Your task to perform on an android device: Open the stopwatch Image 0: 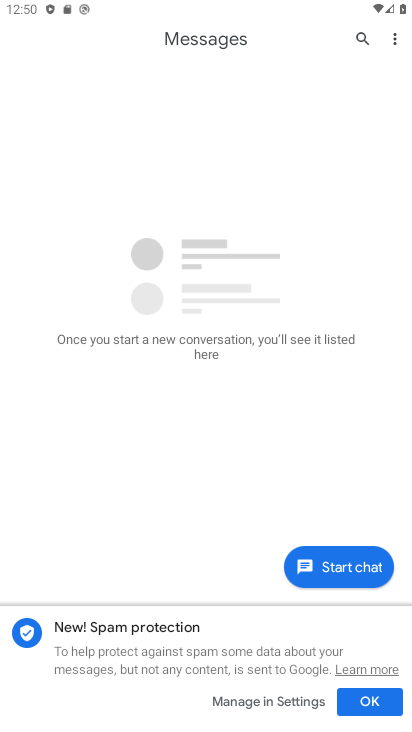
Step 0: press home button
Your task to perform on an android device: Open the stopwatch Image 1: 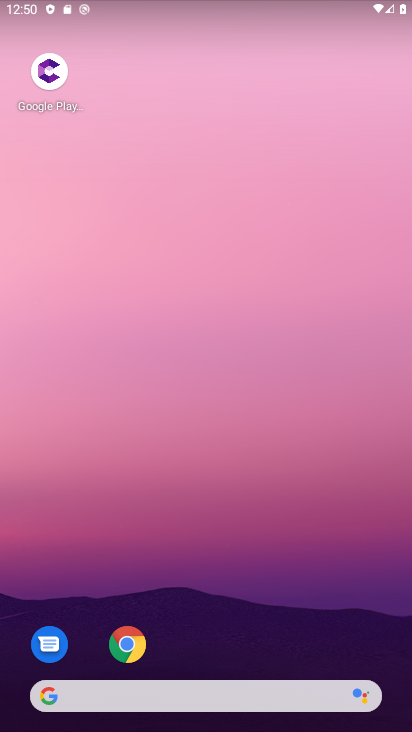
Step 1: drag from (201, 563) to (212, 70)
Your task to perform on an android device: Open the stopwatch Image 2: 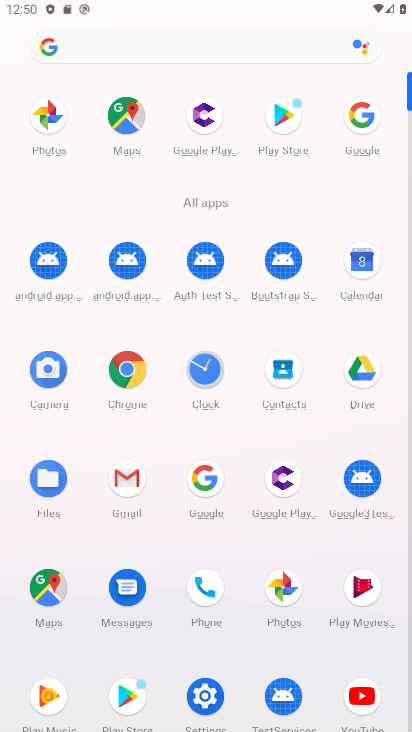
Step 2: click (207, 370)
Your task to perform on an android device: Open the stopwatch Image 3: 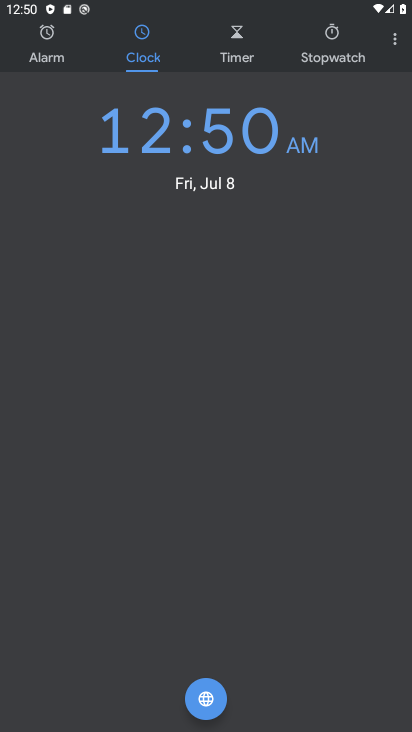
Step 3: click (327, 43)
Your task to perform on an android device: Open the stopwatch Image 4: 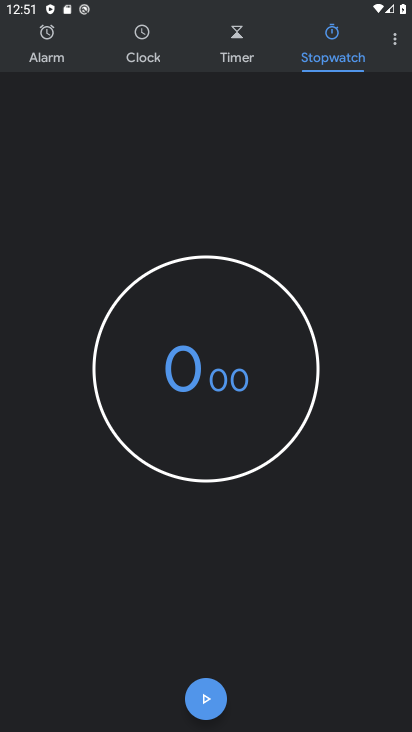
Step 4: click (207, 705)
Your task to perform on an android device: Open the stopwatch Image 5: 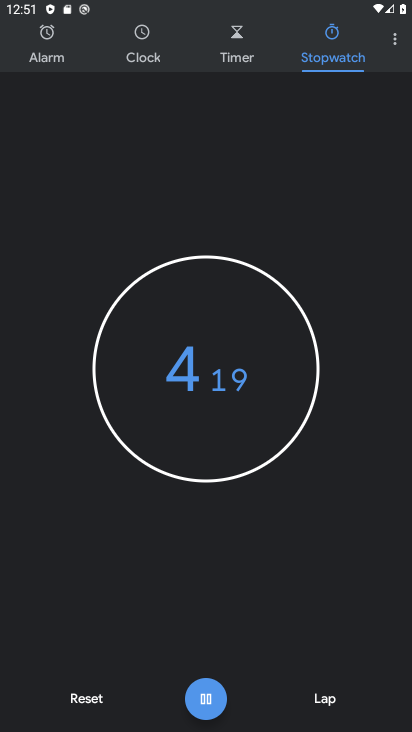
Step 5: click (207, 705)
Your task to perform on an android device: Open the stopwatch Image 6: 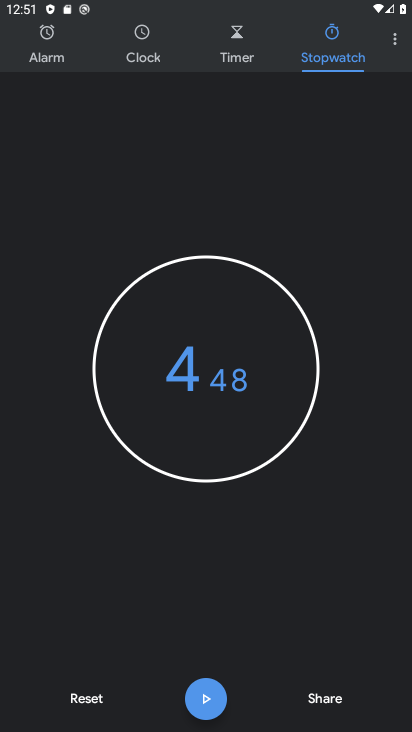
Step 6: task complete